Your task to perform on an android device: open chrome and create a bookmark for the current page Image 0: 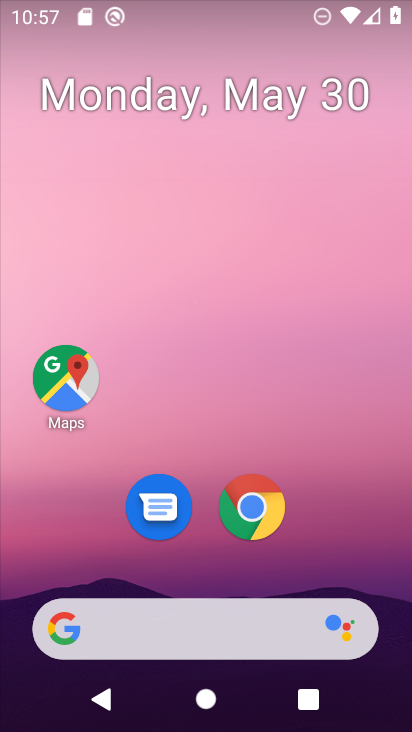
Step 0: drag from (385, 623) to (225, 63)
Your task to perform on an android device: open chrome and create a bookmark for the current page Image 1: 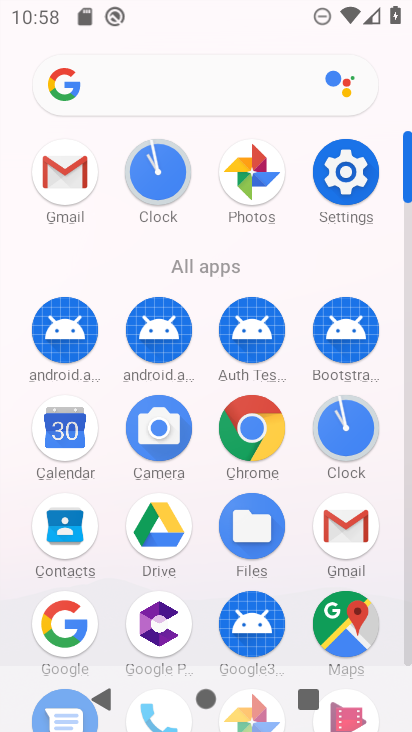
Step 1: click (258, 423)
Your task to perform on an android device: open chrome and create a bookmark for the current page Image 2: 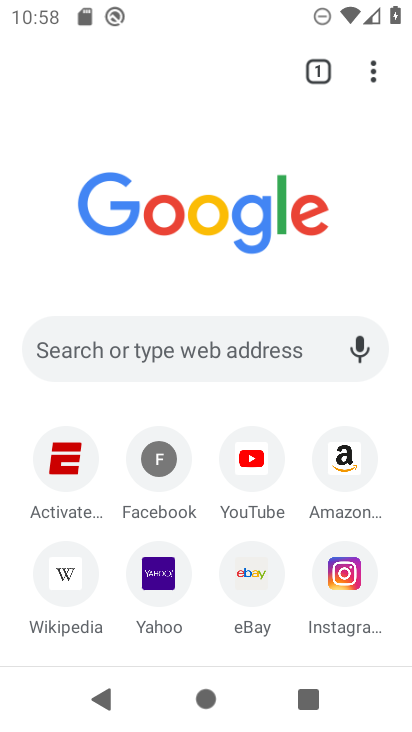
Step 2: click (372, 57)
Your task to perform on an android device: open chrome and create a bookmark for the current page Image 3: 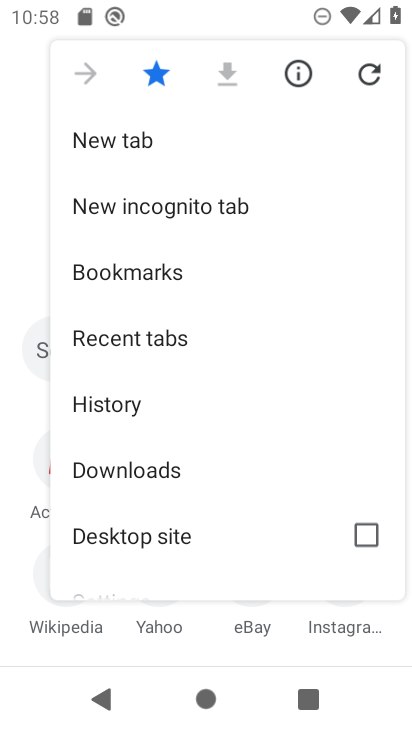
Step 3: task complete